Your task to perform on an android device: move a message to another label in the gmail app Image 0: 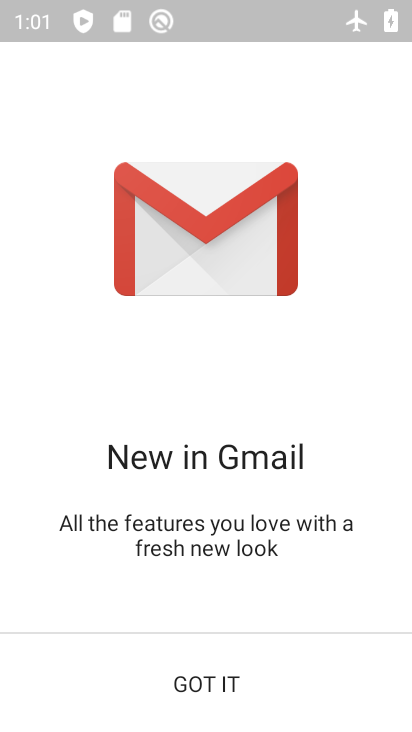
Step 0: click (234, 691)
Your task to perform on an android device: move a message to another label in the gmail app Image 1: 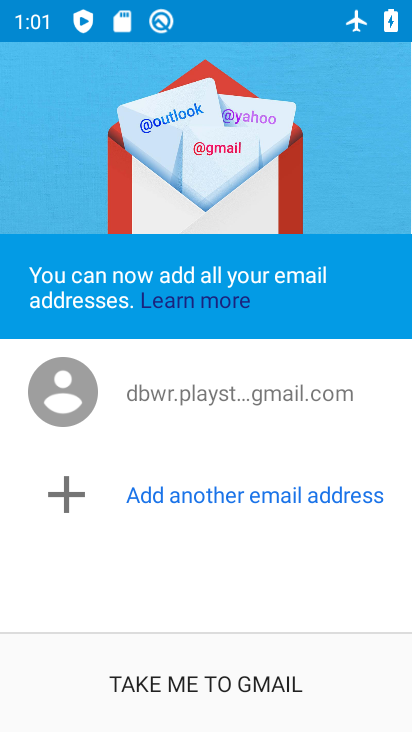
Step 1: click (228, 690)
Your task to perform on an android device: move a message to another label in the gmail app Image 2: 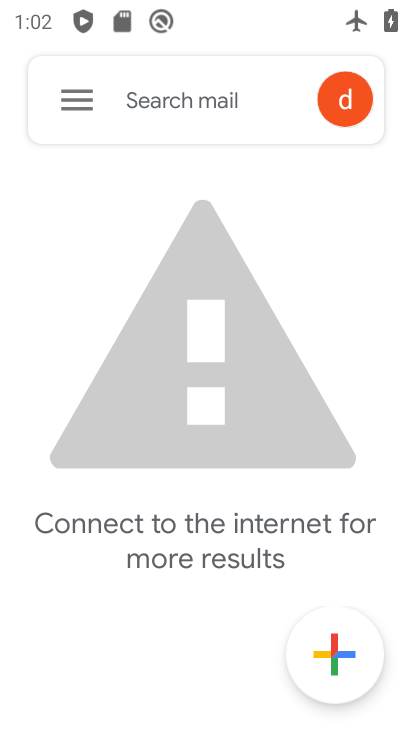
Step 2: task complete